Your task to perform on an android device: What's on my calendar today? Image 0: 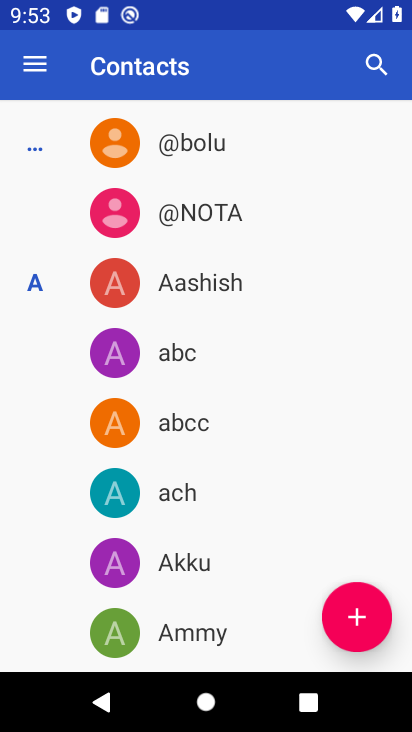
Step 0: press home button
Your task to perform on an android device: What's on my calendar today? Image 1: 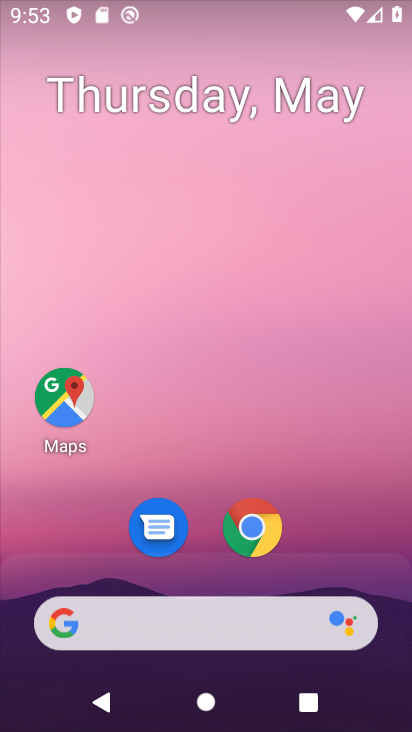
Step 1: drag from (332, 589) to (278, 121)
Your task to perform on an android device: What's on my calendar today? Image 2: 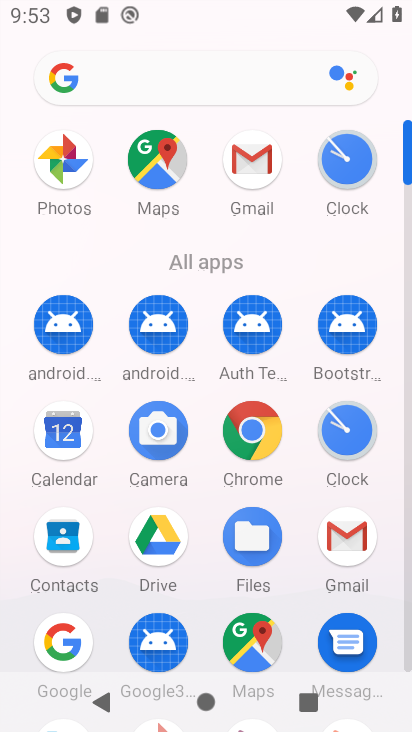
Step 2: drag from (236, 358) to (243, 280)
Your task to perform on an android device: What's on my calendar today? Image 3: 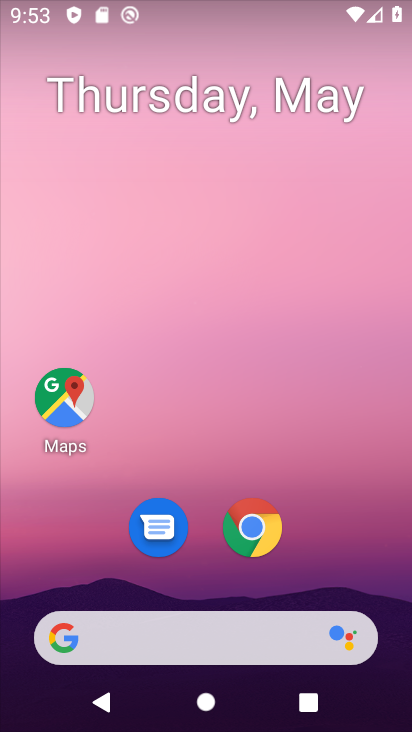
Step 3: click (56, 472)
Your task to perform on an android device: What's on my calendar today? Image 4: 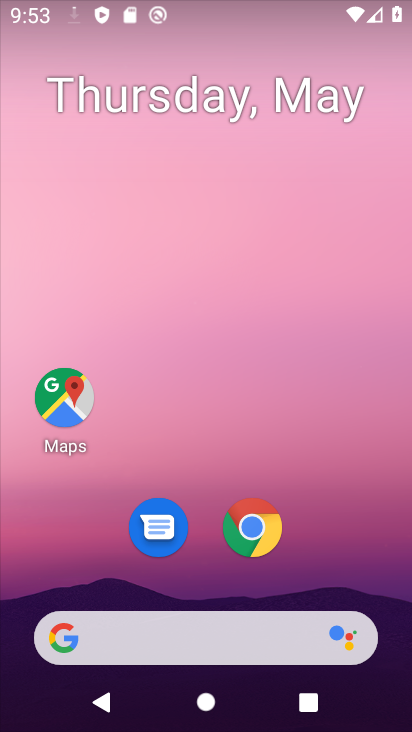
Step 4: drag from (216, 233) to (216, 119)
Your task to perform on an android device: What's on my calendar today? Image 5: 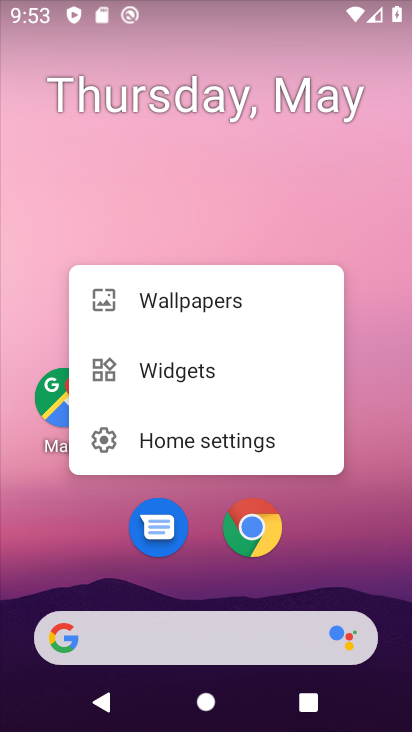
Step 5: click (337, 537)
Your task to perform on an android device: What's on my calendar today? Image 6: 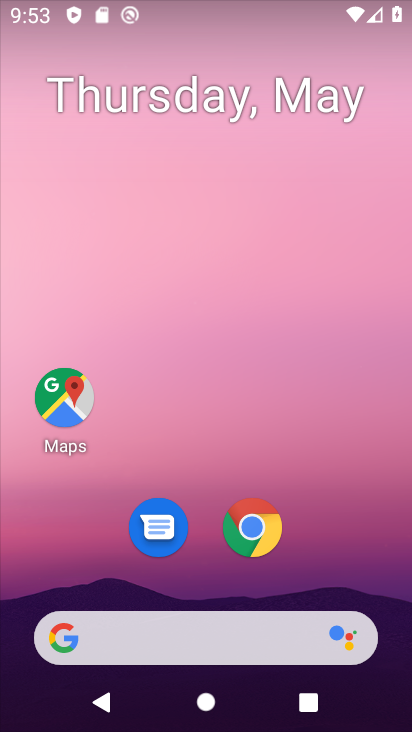
Step 6: drag from (323, 566) to (302, 102)
Your task to perform on an android device: What's on my calendar today? Image 7: 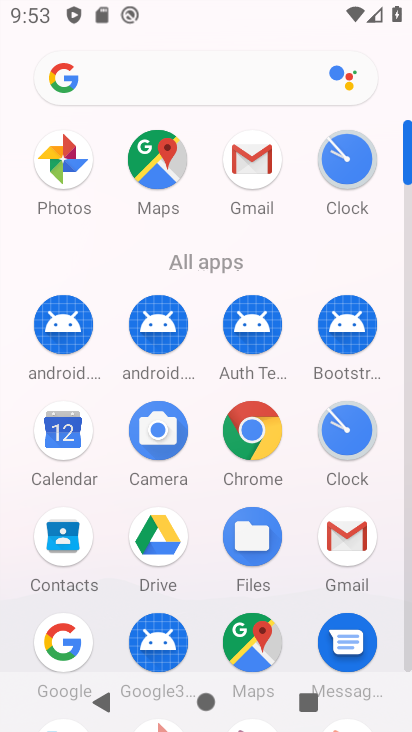
Step 7: click (57, 477)
Your task to perform on an android device: What's on my calendar today? Image 8: 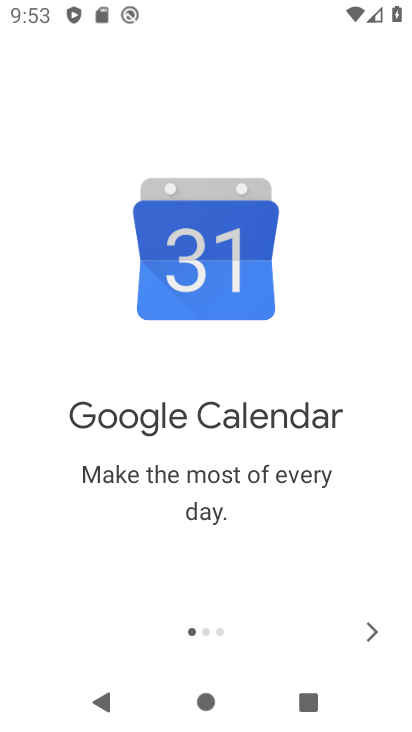
Step 8: click (375, 644)
Your task to perform on an android device: What's on my calendar today? Image 9: 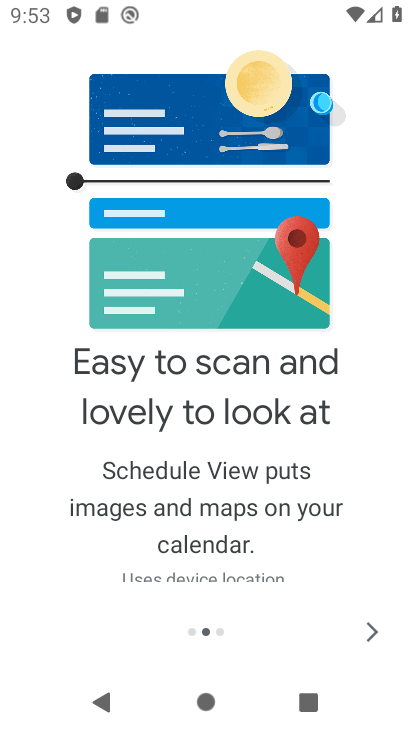
Step 9: click (369, 621)
Your task to perform on an android device: What's on my calendar today? Image 10: 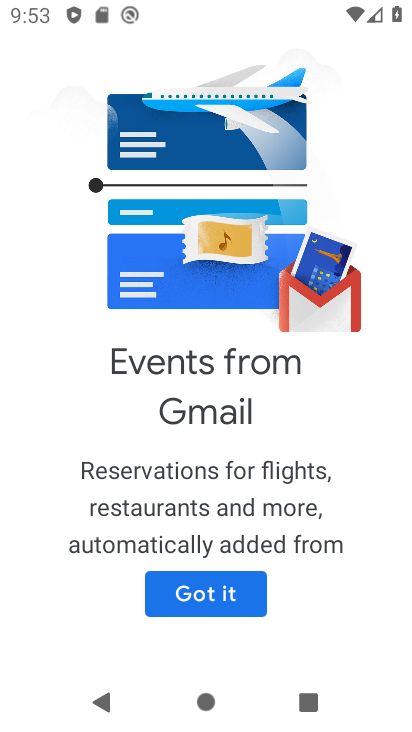
Step 10: click (189, 590)
Your task to perform on an android device: What's on my calendar today? Image 11: 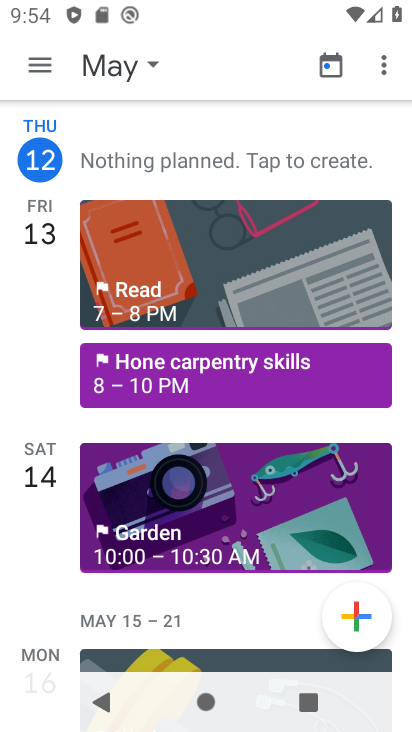
Step 11: task complete